Your task to perform on an android device: check storage Image 0: 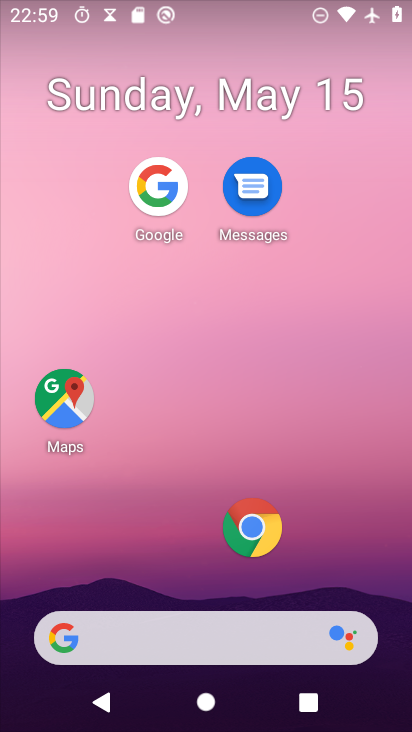
Step 0: drag from (175, 571) to (291, 67)
Your task to perform on an android device: check storage Image 1: 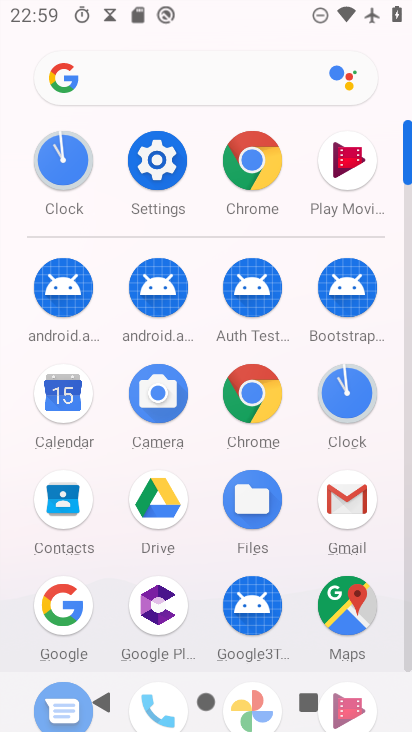
Step 1: click (165, 170)
Your task to perform on an android device: check storage Image 2: 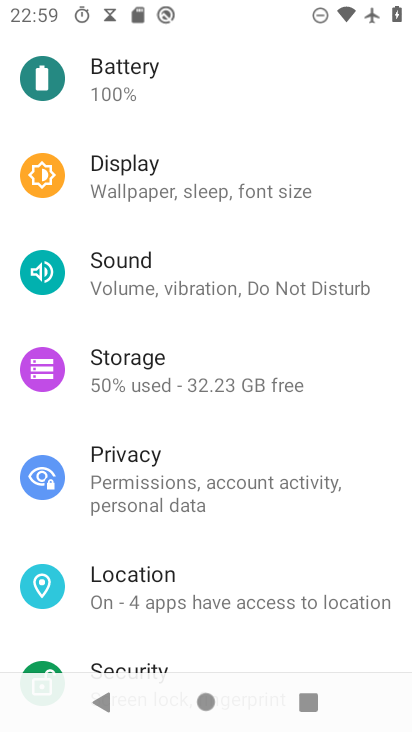
Step 2: click (101, 391)
Your task to perform on an android device: check storage Image 3: 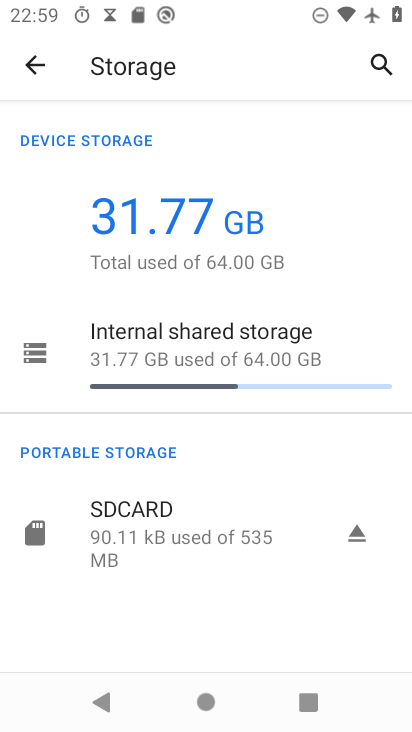
Step 3: task complete